Your task to perform on an android device: change notification settings in the gmail app Image 0: 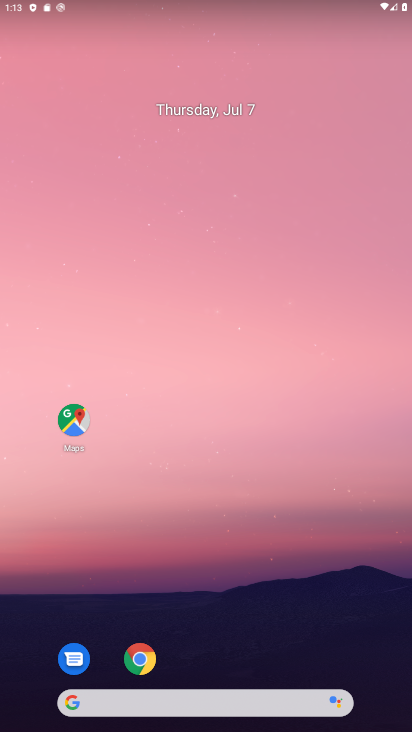
Step 0: press home button
Your task to perform on an android device: change notification settings in the gmail app Image 1: 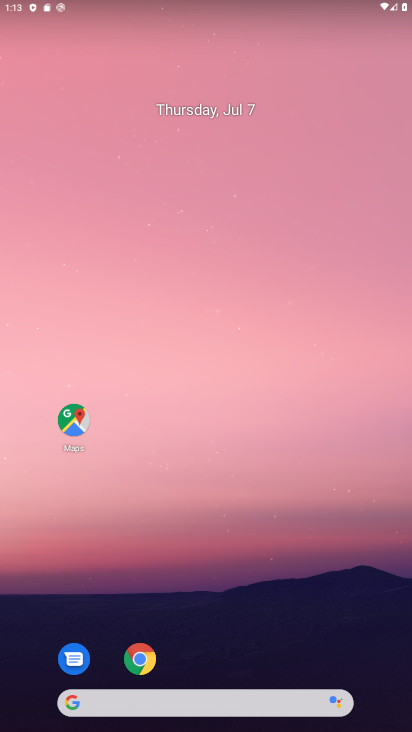
Step 1: drag from (247, 653) to (233, 89)
Your task to perform on an android device: change notification settings in the gmail app Image 2: 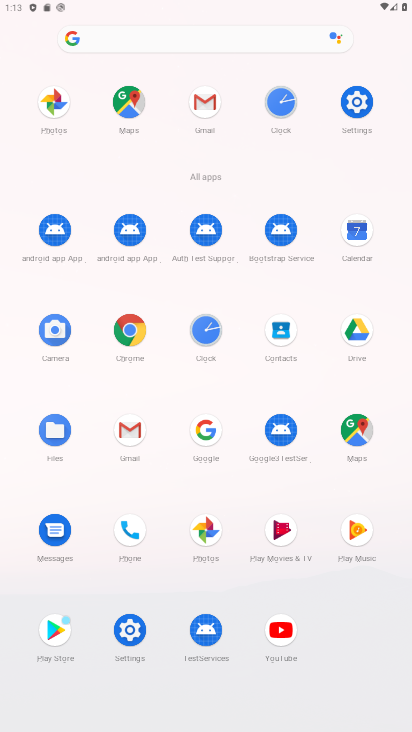
Step 2: click (199, 97)
Your task to perform on an android device: change notification settings in the gmail app Image 3: 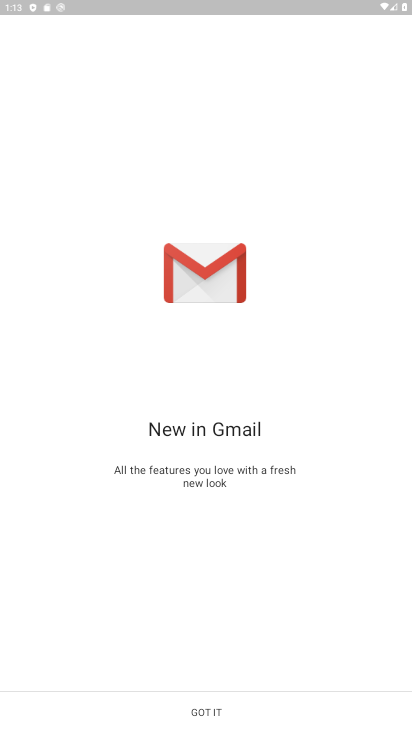
Step 3: click (210, 708)
Your task to perform on an android device: change notification settings in the gmail app Image 4: 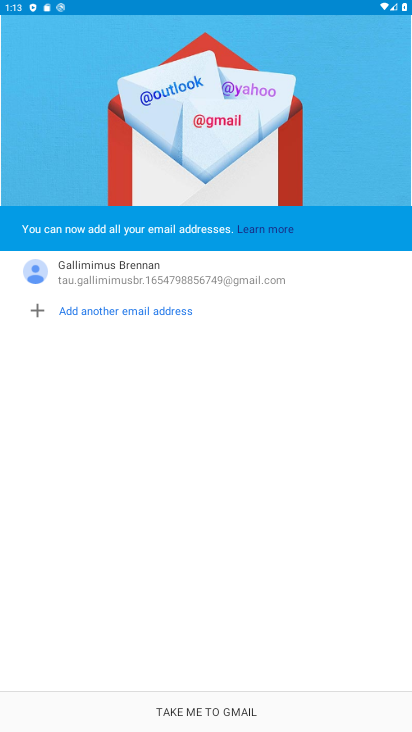
Step 4: click (205, 705)
Your task to perform on an android device: change notification settings in the gmail app Image 5: 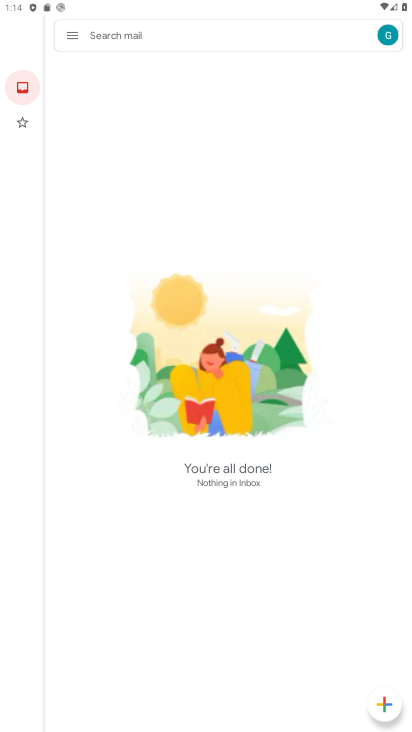
Step 5: click (64, 26)
Your task to perform on an android device: change notification settings in the gmail app Image 6: 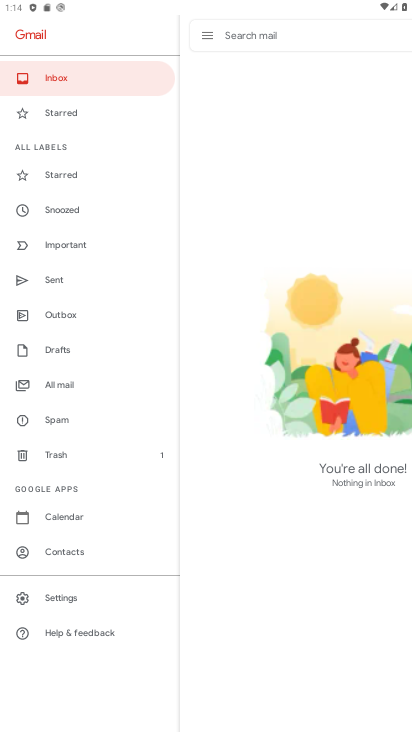
Step 6: click (59, 599)
Your task to perform on an android device: change notification settings in the gmail app Image 7: 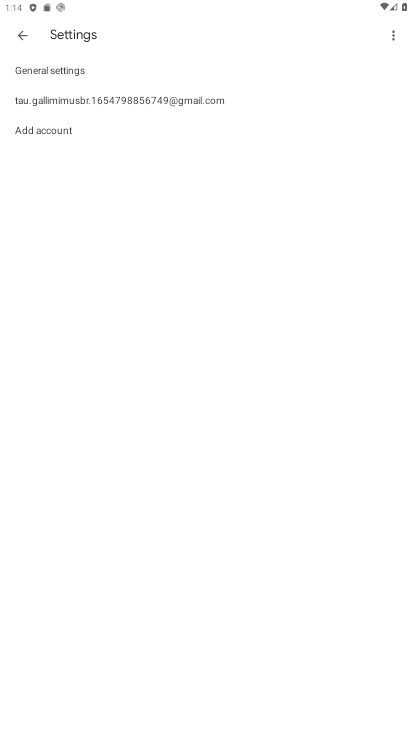
Step 7: click (78, 66)
Your task to perform on an android device: change notification settings in the gmail app Image 8: 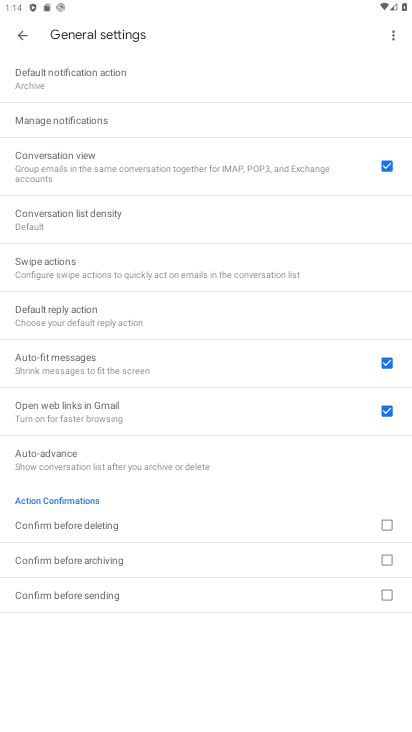
Step 8: click (123, 114)
Your task to perform on an android device: change notification settings in the gmail app Image 9: 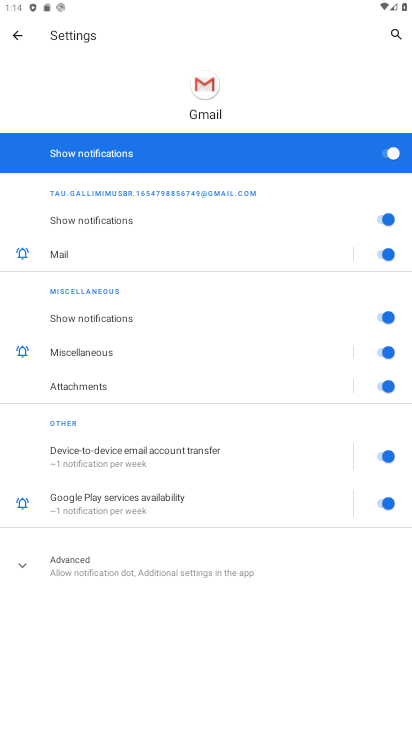
Step 9: click (386, 152)
Your task to perform on an android device: change notification settings in the gmail app Image 10: 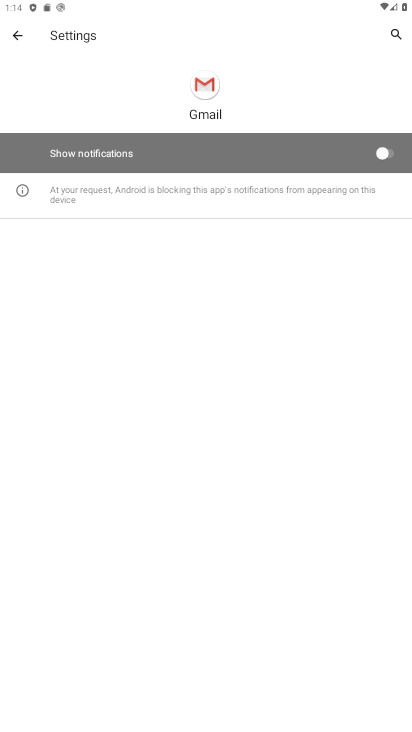
Step 10: task complete